Your task to perform on an android device: What's on my calendar today? Image 0: 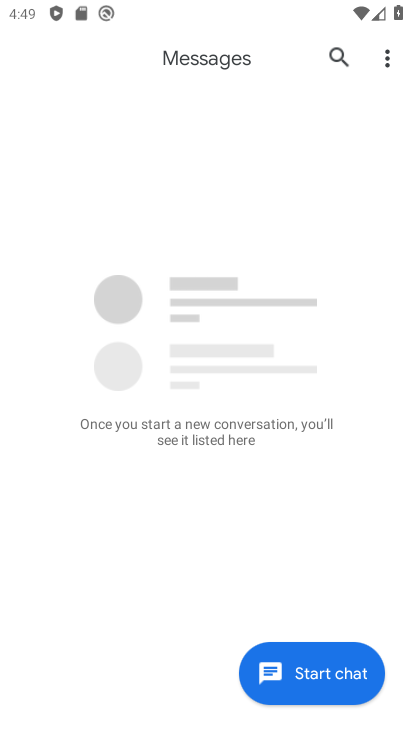
Step 0: press home button
Your task to perform on an android device: What's on my calendar today? Image 1: 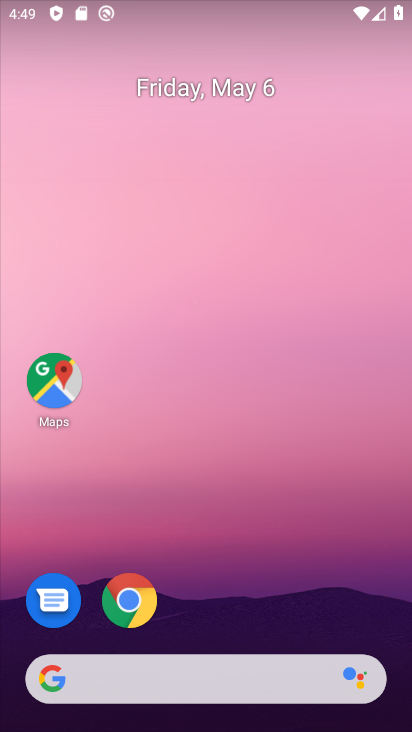
Step 1: drag from (242, 631) to (303, 74)
Your task to perform on an android device: What's on my calendar today? Image 2: 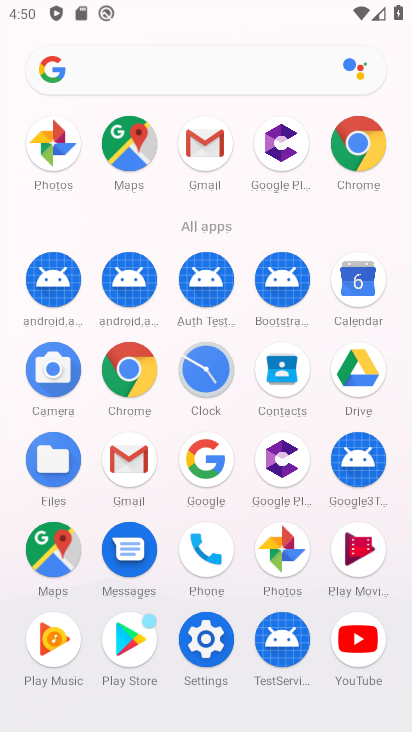
Step 2: click (354, 289)
Your task to perform on an android device: What's on my calendar today? Image 3: 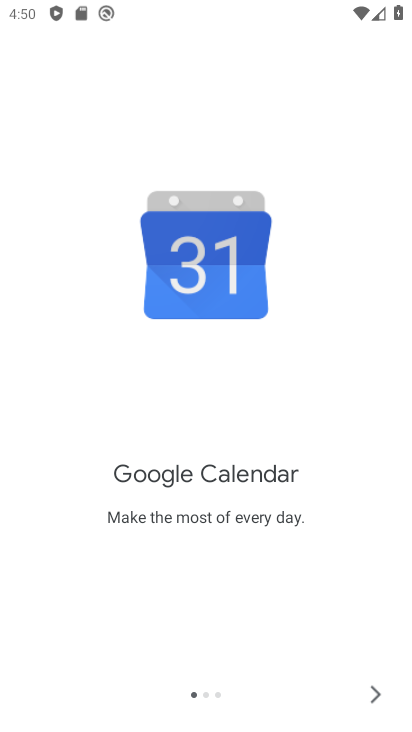
Step 3: click (371, 686)
Your task to perform on an android device: What's on my calendar today? Image 4: 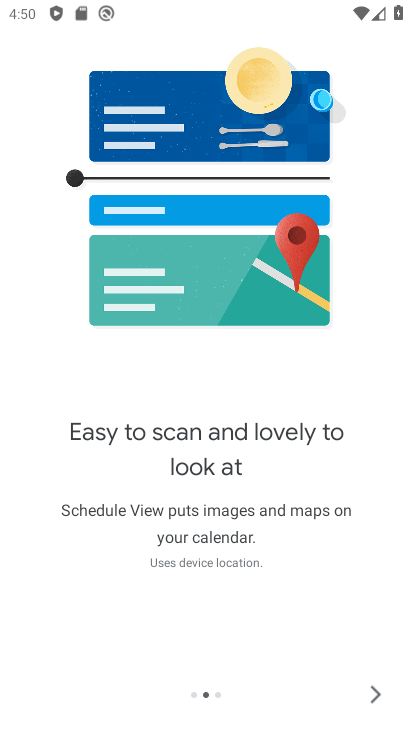
Step 4: click (371, 686)
Your task to perform on an android device: What's on my calendar today? Image 5: 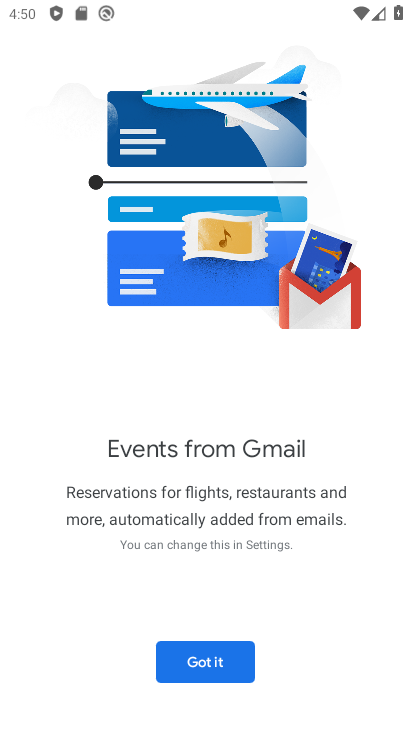
Step 5: click (210, 661)
Your task to perform on an android device: What's on my calendar today? Image 6: 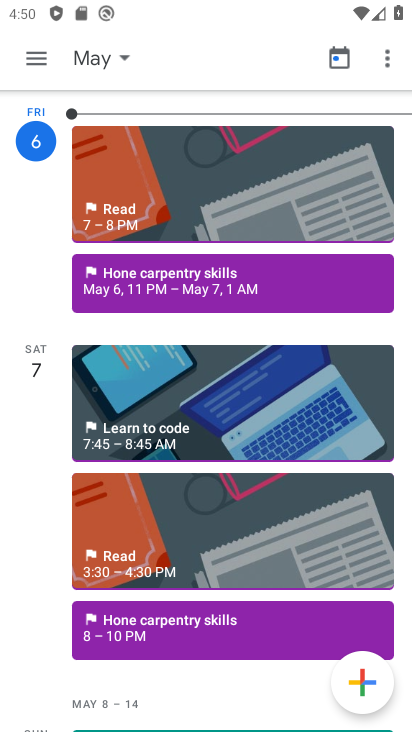
Step 6: click (31, 61)
Your task to perform on an android device: What's on my calendar today? Image 7: 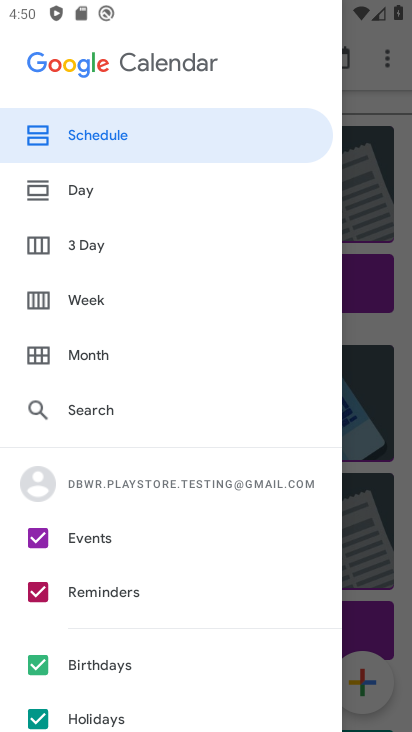
Step 7: click (93, 200)
Your task to perform on an android device: What's on my calendar today? Image 8: 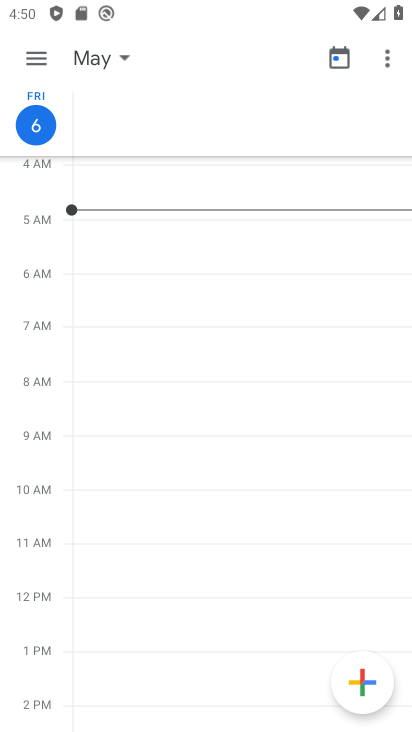
Step 8: task complete